Your task to perform on an android device: What is the news today? Image 0: 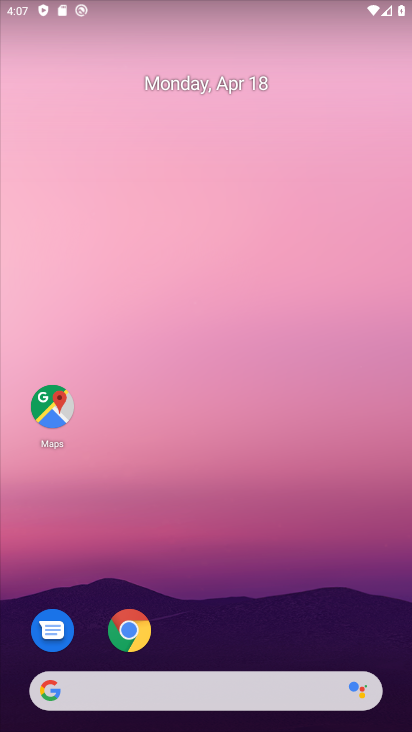
Step 0: click (130, 633)
Your task to perform on an android device: What is the news today? Image 1: 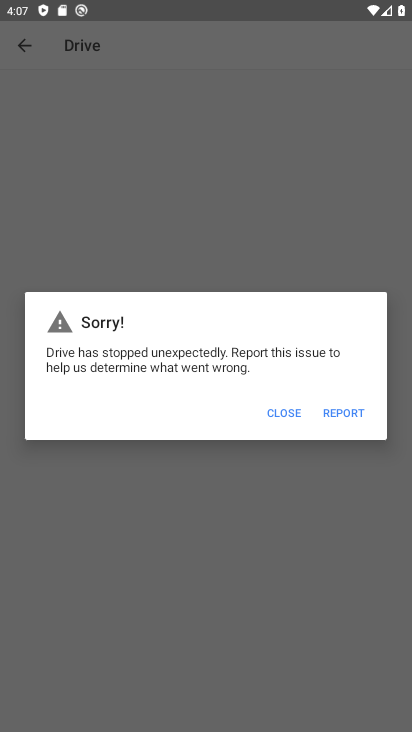
Step 1: press back button
Your task to perform on an android device: What is the news today? Image 2: 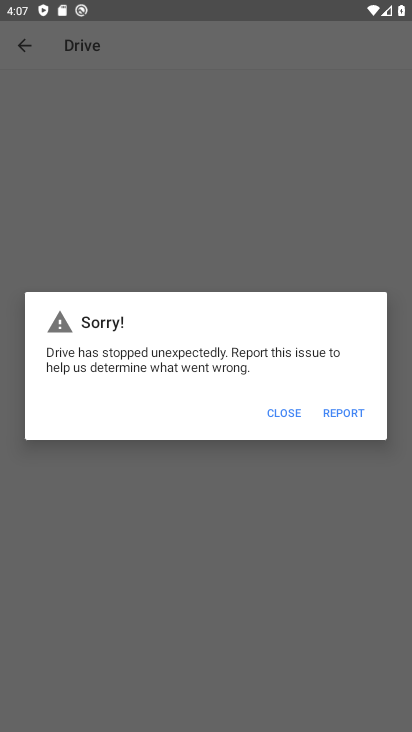
Step 2: press back button
Your task to perform on an android device: What is the news today? Image 3: 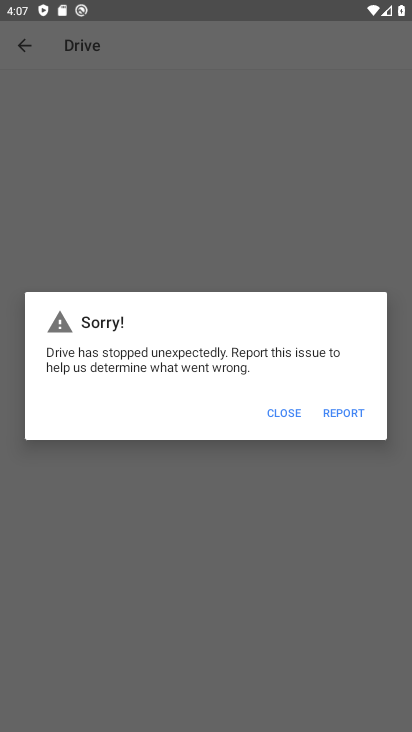
Step 3: press home button
Your task to perform on an android device: What is the news today? Image 4: 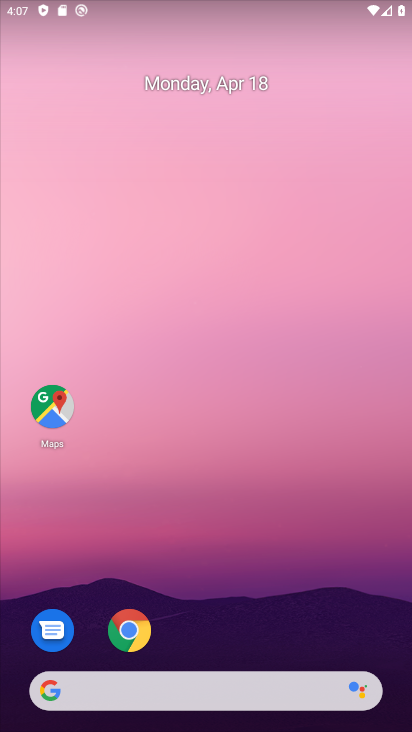
Step 4: drag from (229, 617) to (298, 67)
Your task to perform on an android device: What is the news today? Image 5: 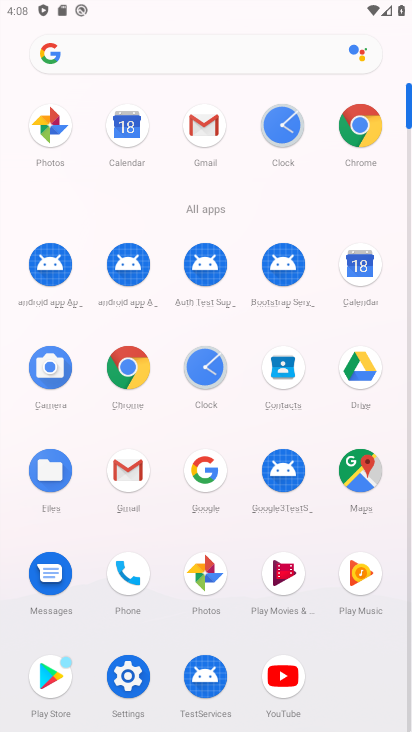
Step 5: click (209, 474)
Your task to perform on an android device: What is the news today? Image 6: 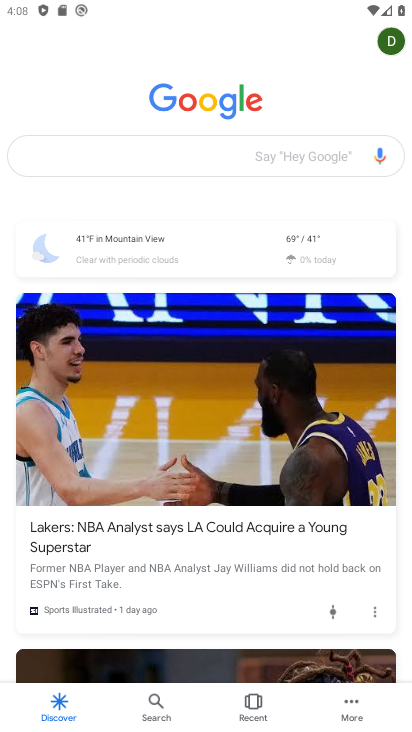
Step 6: click (235, 160)
Your task to perform on an android device: What is the news today? Image 7: 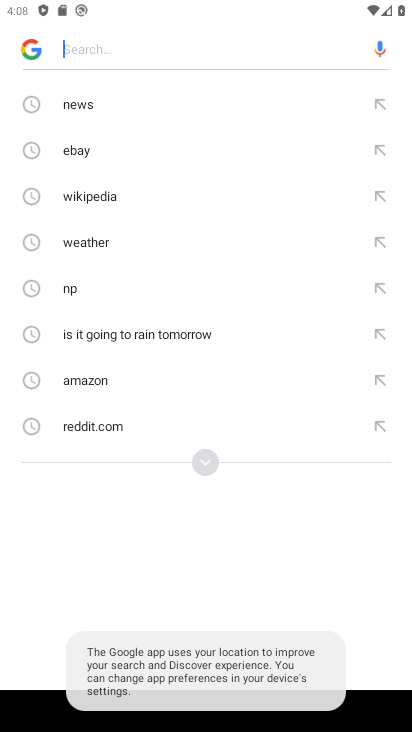
Step 7: click (70, 113)
Your task to perform on an android device: What is the news today? Image 8: 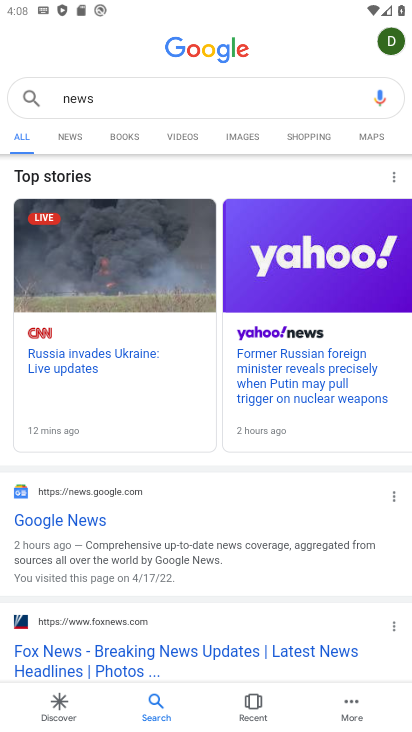
Step 8: click (121, 351)
Your task to perform on an android device: What is the news today? Image 9: 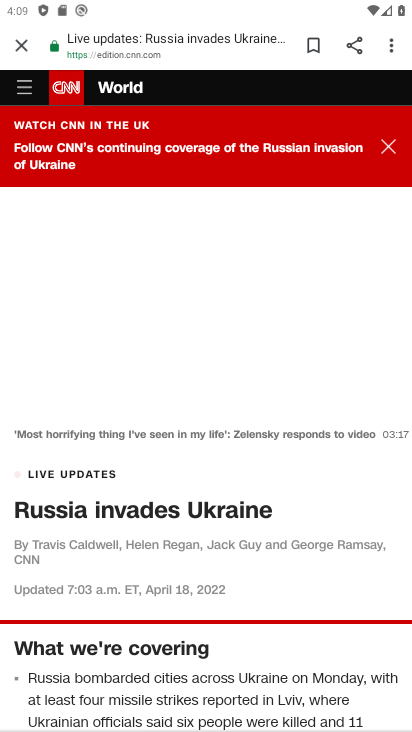
Step 9: task complete